Your task to perform on an android device: Show me the best rated coffee table on Ikea Image 0: 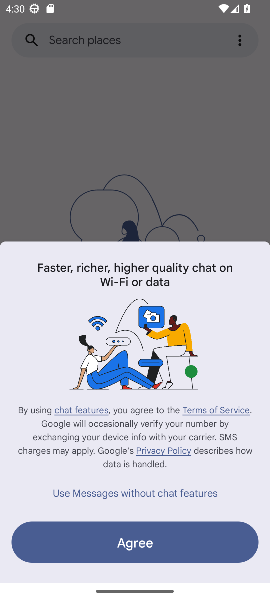
Step 0: press home button
Your task to perform on an android device: Show me the best rated coffee table on Ikea Image 1: 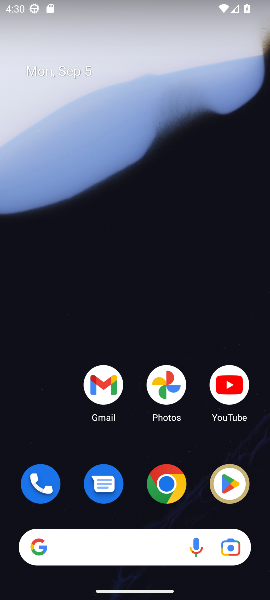
Step 1: click (175, 490)
Your task to perform on an android device: Show me the best rated coffee table on Ikea Image 2: 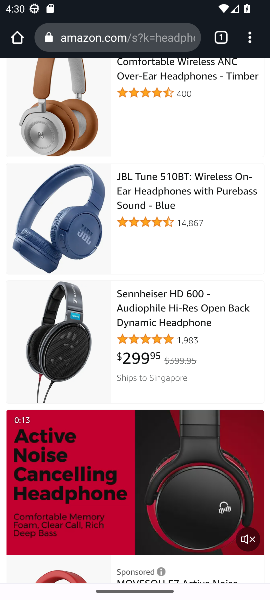
Step 2: click (167, 34)
Your task to perform on an android device: Show me the best rated coffee table on Ikea Image 3: 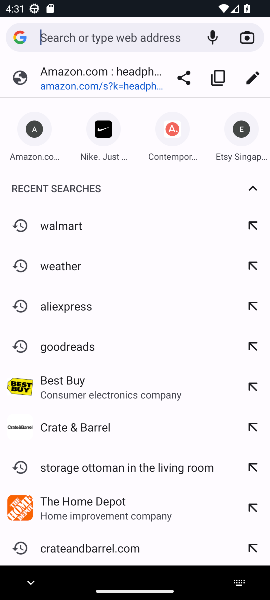
Step 3: type "Ikea"
Your task to perform on an android device: Show me the best rated coffee table on Ikea Image 4: 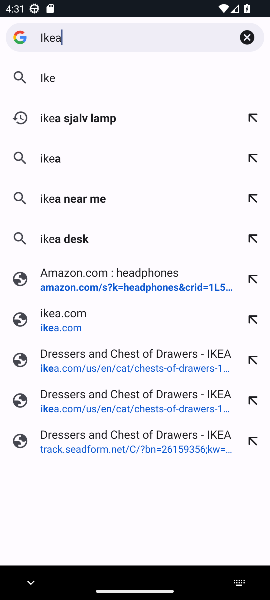
Step 4: press enter
Your task to perform on an android device: Show me the best rated coffee table on Ikea Image 5: 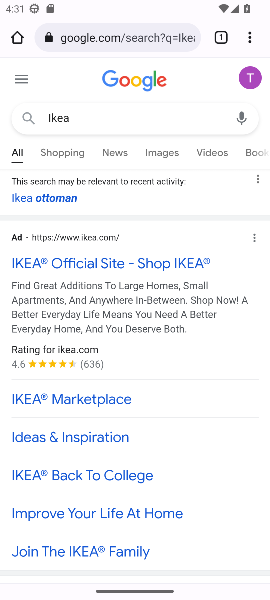
Step 5: click (164, 269)
Your task to perform on an android device: Show me the best rated coffee table on Ikea Image 6: 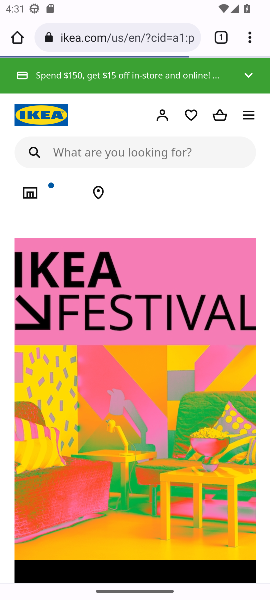
Step 6: click (144, 152)
Your task to perform on an android device: Show me the best rated coffee table on Ikea Image 7: 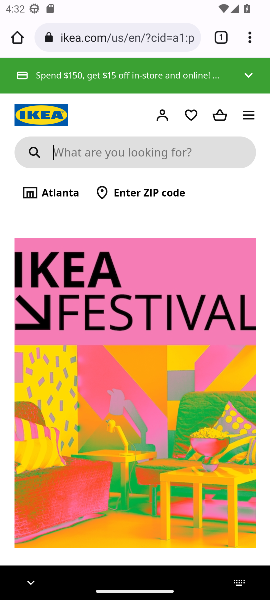
Step 7: type "coffee table"
Your task to perform on an android device: Show me the best rated coffee table on Ikea Image 8: 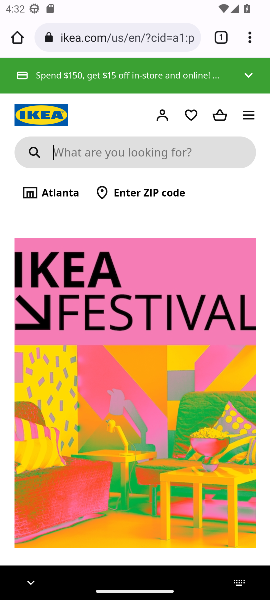
Step 8: press enter
Your task to perform on an android device: Show me the best rated coffee table on Ikea Image 9: 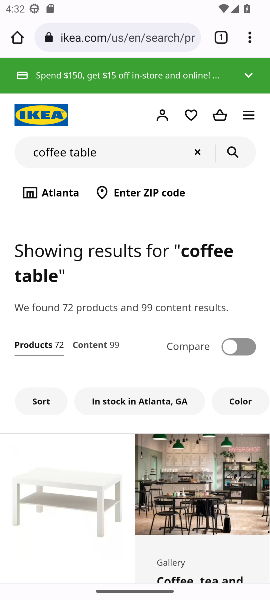
Step 9: task complete